Your task to perform on an android device: Find coffee shops on Maps Image 0: 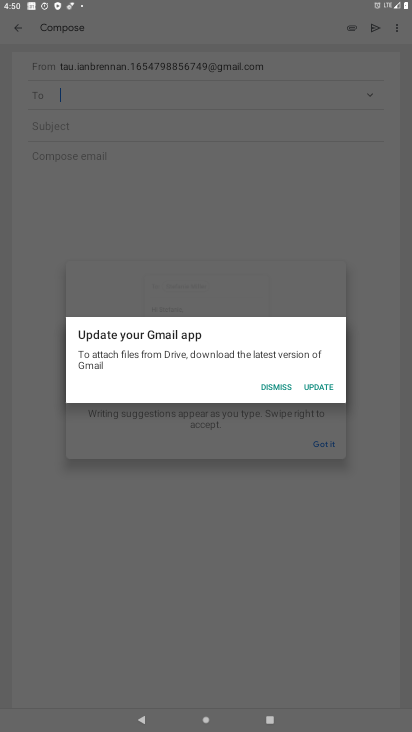
Step 0: press home button
Your task to perform on an android device: Find coffee shops on Maps Image 1: 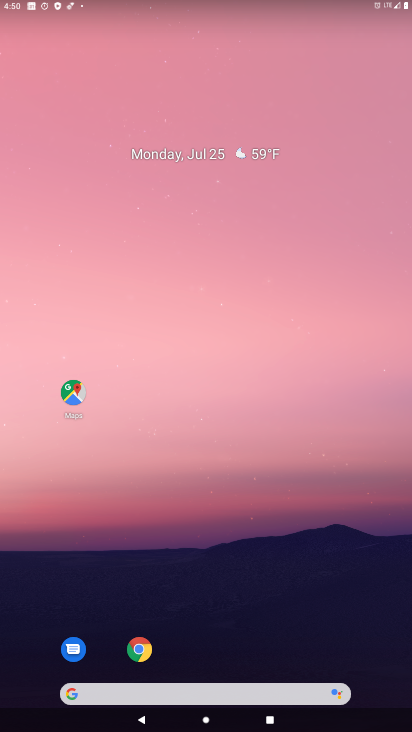
Step 1: click (71, 390)
Your task to perform on an android device: Find coffee shops on Maps Image 2: 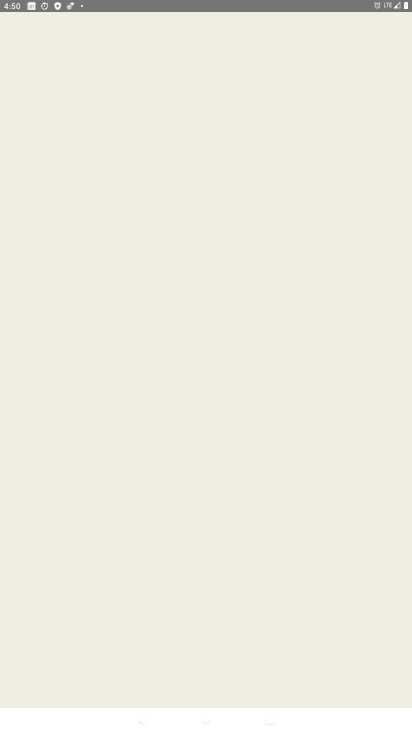
Step 2: press home button
Your task to perform on an android device: Find coffee shops on Maps Image 3: 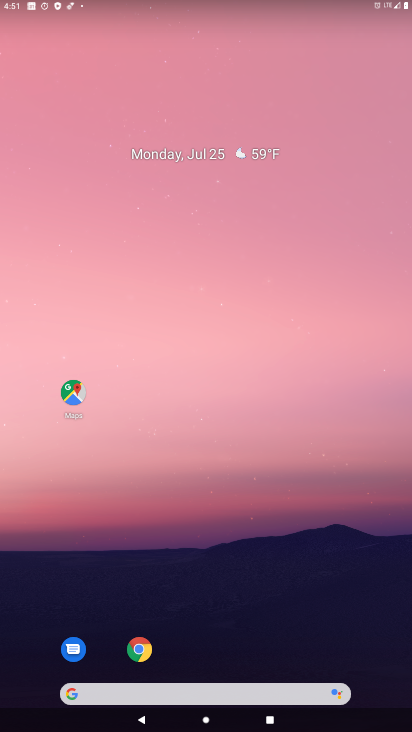
Step 3: click (63, 393)
Your task to perform on an android device: Find coffee shops on Maps Image 4: 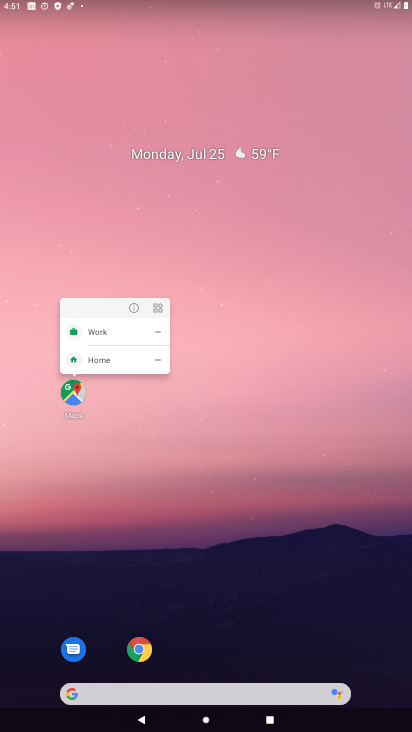
Step 4: click (63, 394)
Your task to perform on an android device: Find coffee shops on Maps Image 5: 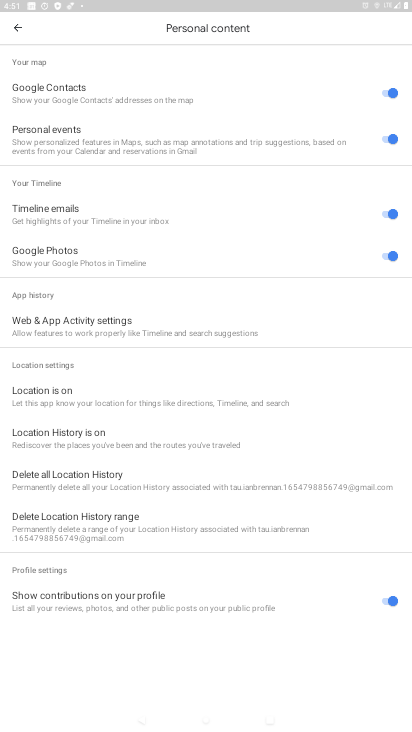
Step 5: click (15, 28)
Your task to perform on an android device: Find coffee shops on Maps Image 6: 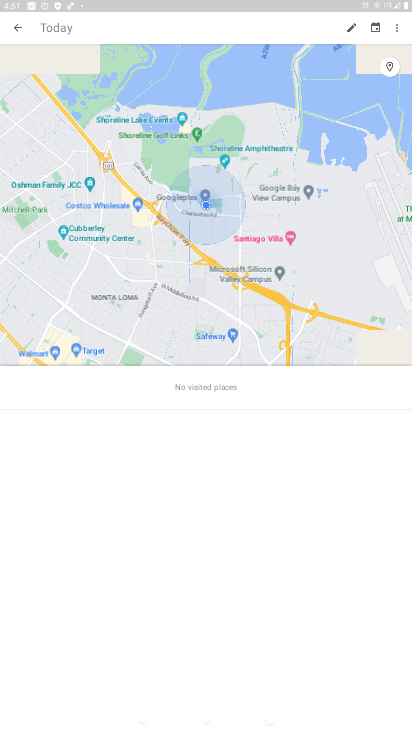
Step 6: click (22, 28)
Your task to perform on an android device: Find coffee shops on Maps Image 7: 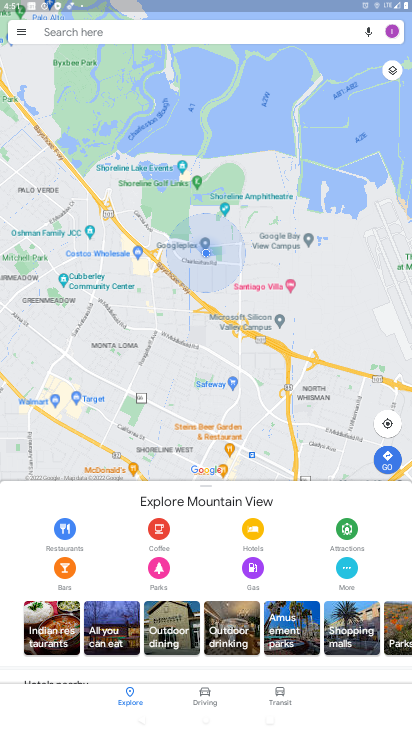
Step 7: click (165, 36)
Your task to perform on an android device: Find coffee shops on Maps Image 8: 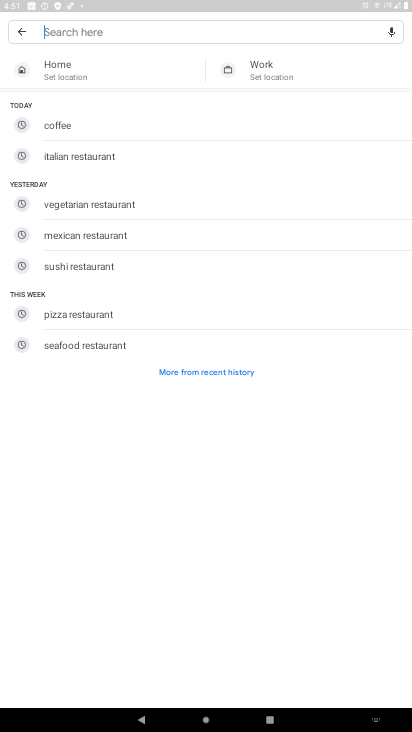
Step 8: type "coffee shops"
Your task to perform on an android device: Find coffee shops on Maps Image 9: 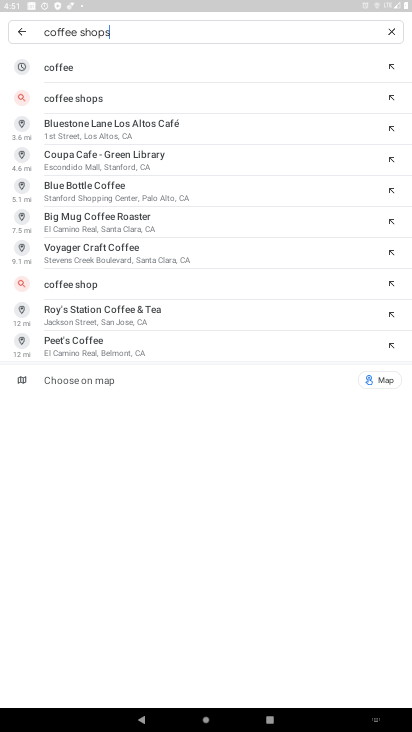
Step 9: click (110, 100)
Your task to perform on an android device: Find coffee shops on Maps Image 10: 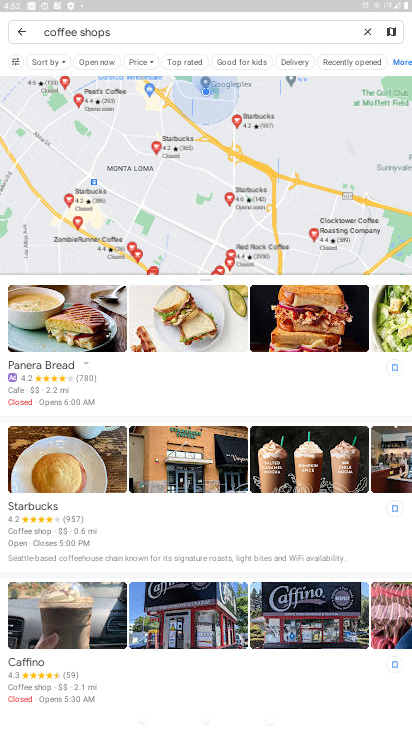
Step 10: task complete